Your task to perform on an android device: check the backup settings in the google photos Image 0: 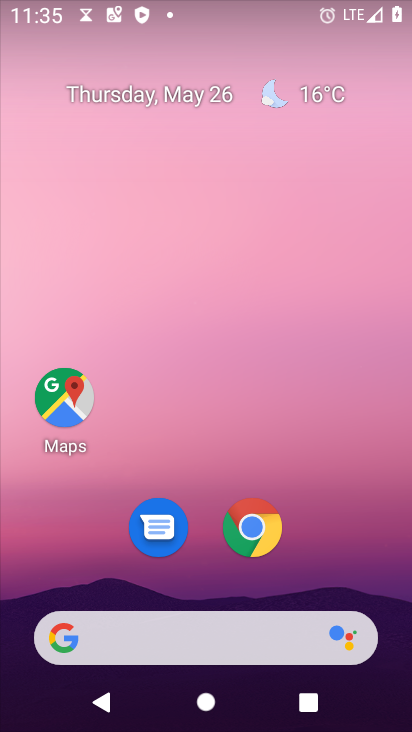
Step 0: drag from (206, 582) to (196, 43)
Your task to perform on an android device: check the backup settings in the google photos Image 1: 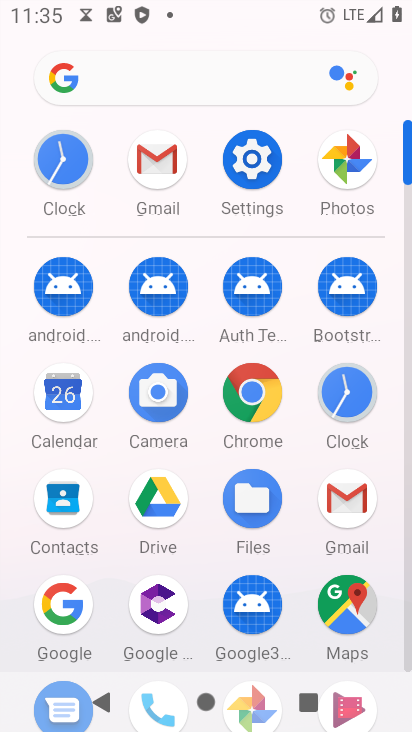
Step 1: click (343, 173)
Your task to perform on an android device: check the backup settings in the google photos Image 2: 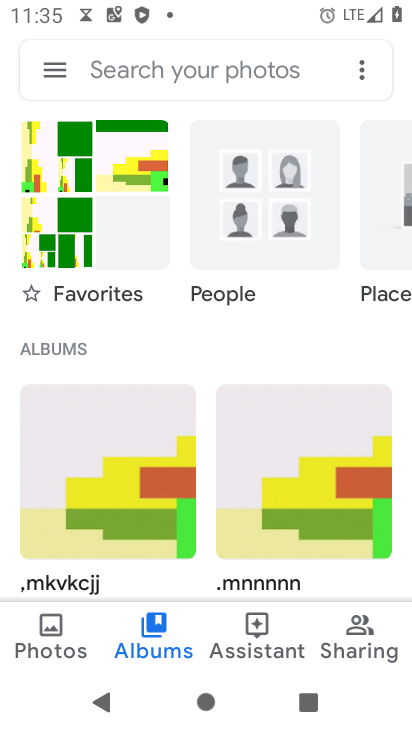
Step 2: click (59, 72)
Your task to perform on an android device: check the backup settings in the google photos Image 3: 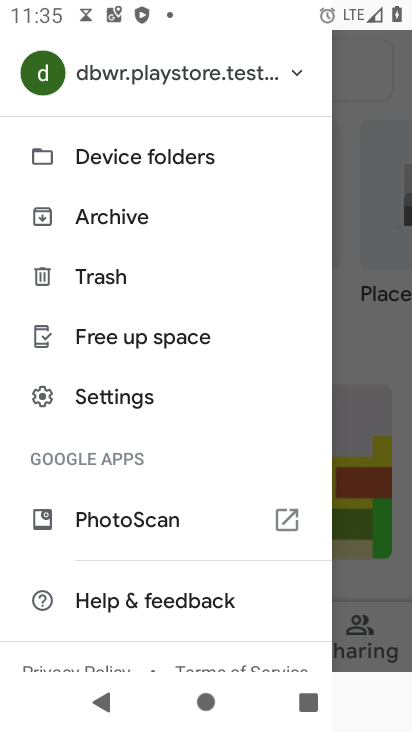
Step 3: click (168, 387)
Your task to perform on an android device: check the backup settings in the google photos Image 4: 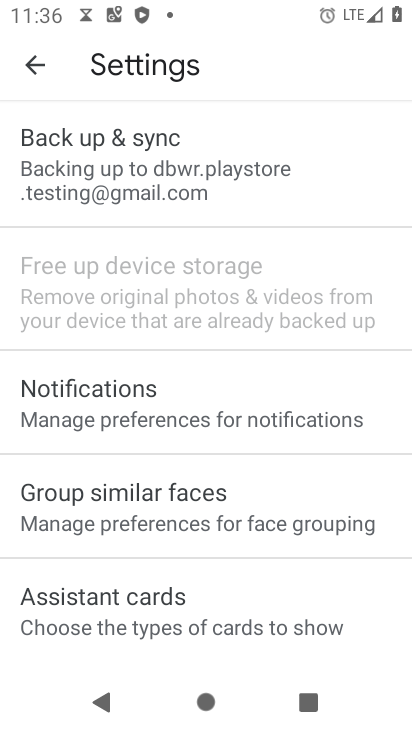
Step 4: click (108, 187)
Your task to perform on an android device: check the backup settings in the google photos Image 5: 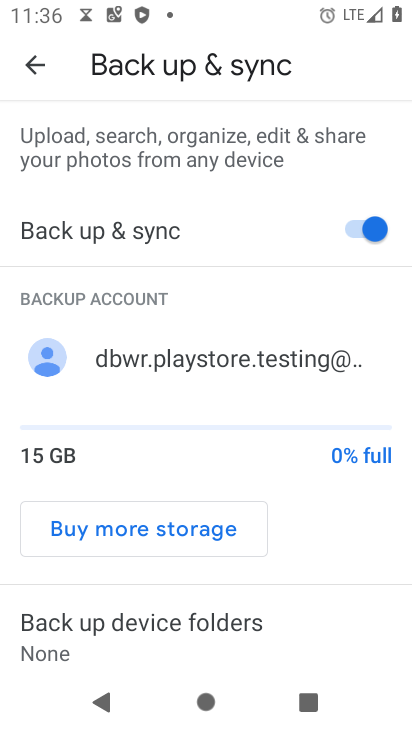
Step 5: task complete